Your task to perform on an android device: find snoozed emails in the gmail app Image 0: 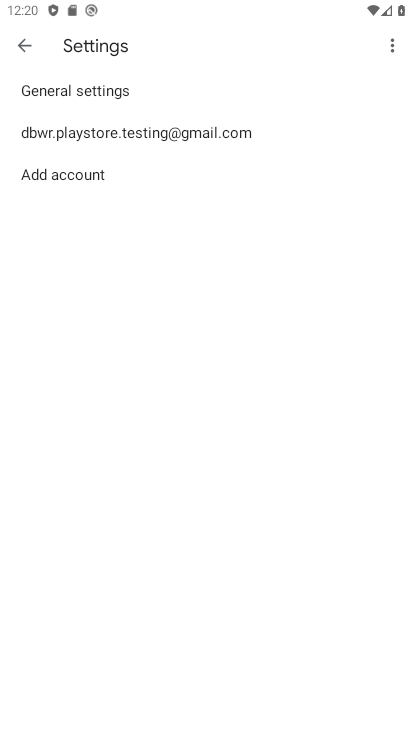
Step 0: press home button
Your task to perform on an android device: find snoozed emails in the gmail app Image 1: 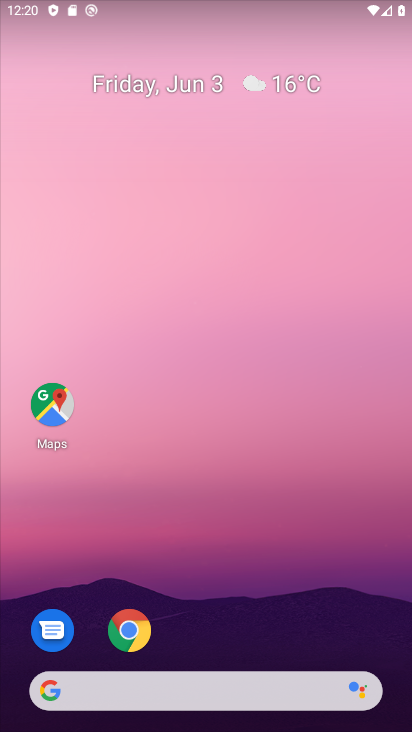
Step 1: drag from (224, 701) to (306, 188)
Your task to perform on an android device: find snoozed emails in the gmail app Image 2: 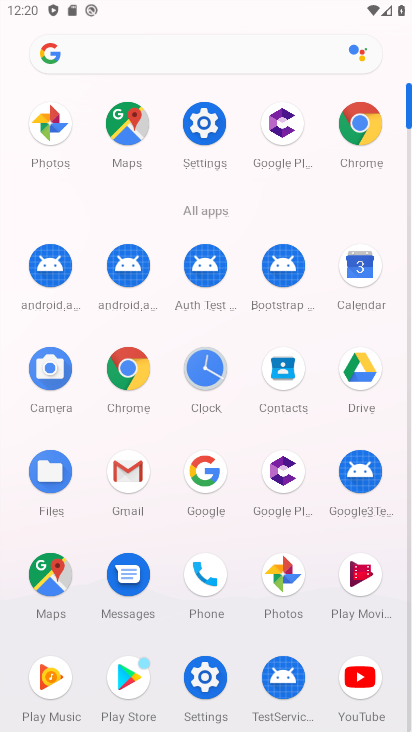
Step 2: click (133, 470)
Your task to perform on an android device: find snoozed emails in the gmail app Image 3: 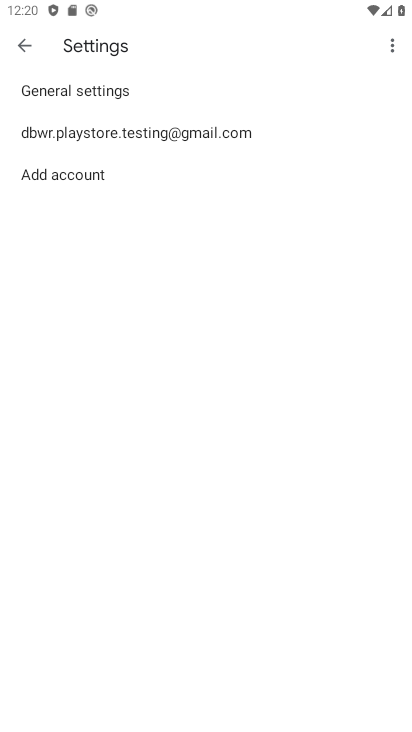
Step 3: click (37, 49)
Your task to perform on an android device: find snoozed emails in the gmail app Image 4: 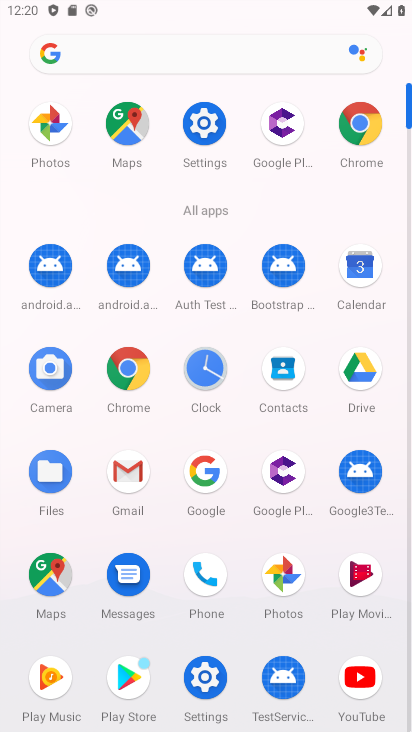
Step 4: click (125, 478)
Your task to perform on an android device: find snoozed emails in the gmail app Image 5: 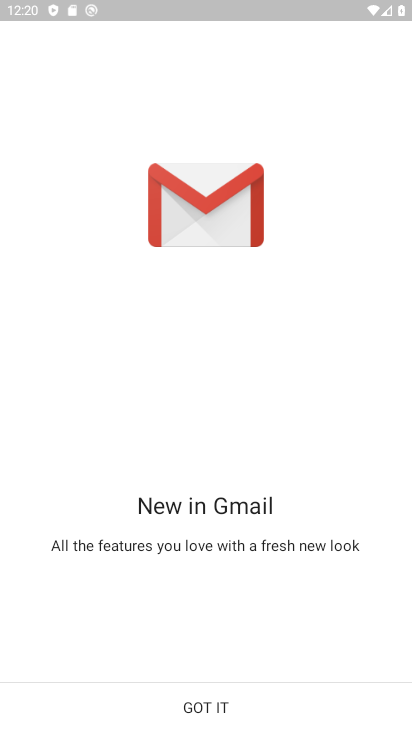
Step 5: click (221, 715)
Your task to perform on an android device: find snoozed emails in the gmail app Image 6: 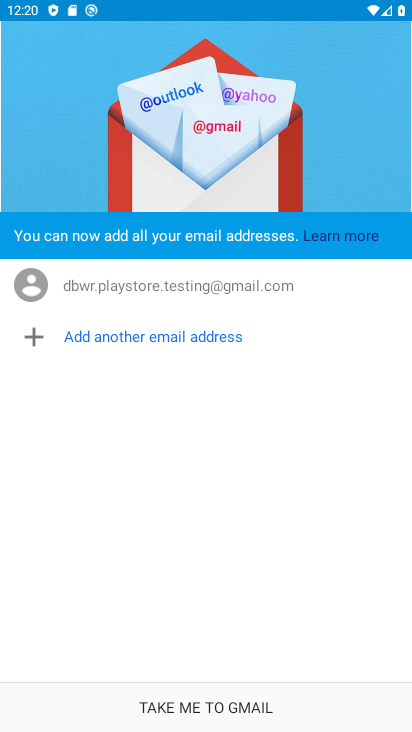
Step 6: click (221, 715)
Your task to perform on an android device: find snoozed emails in the gmail app Image 7: 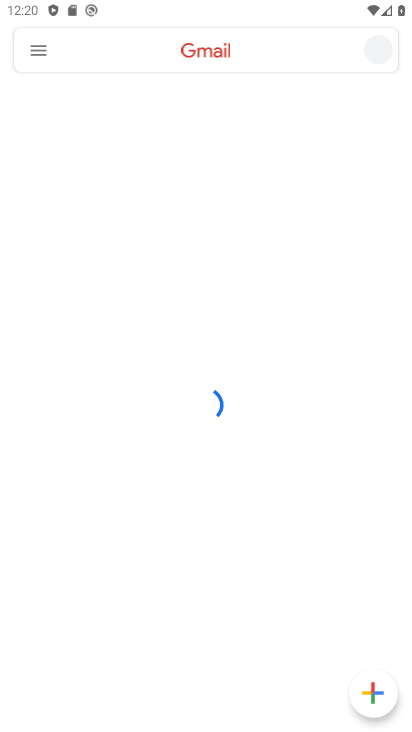
Step 7: click (39, 46)
Your task to perform on an android device: find snoozed emails in the gmail app Image 8: 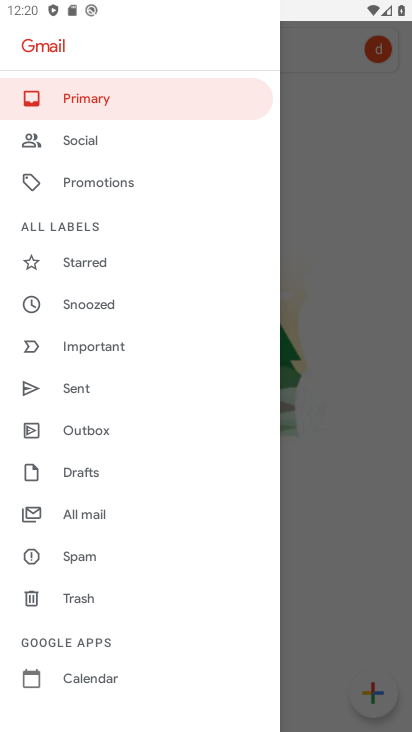
Step 8: drag from (120, 684) to (117, 581)
Your task to perform on an android device: find snoozed emails in the gmail app Image 9: 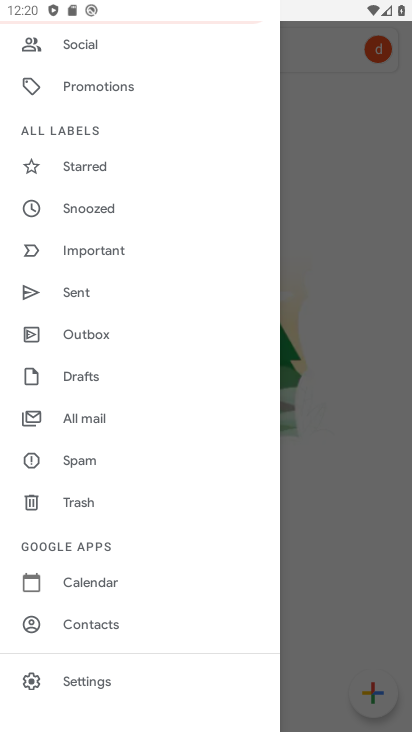
Step 9: click (94, 678)
Your task to perform on an android device: find snoozed emails in the gmail app Image 10: 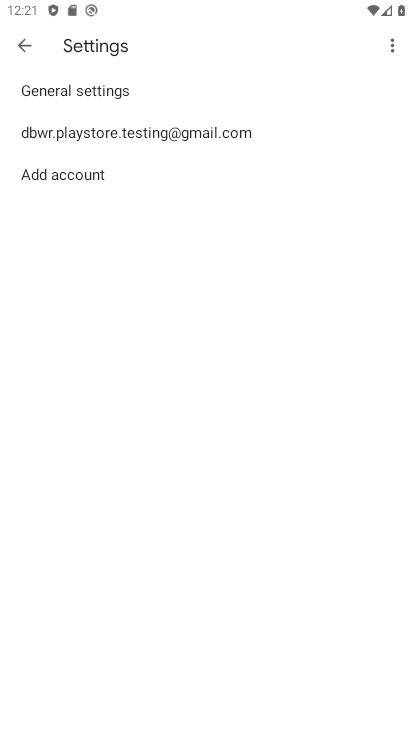
Step 10: click (89, 132)
Your task to perform on an android device: find snoozed emails in the gmail app Image 11: 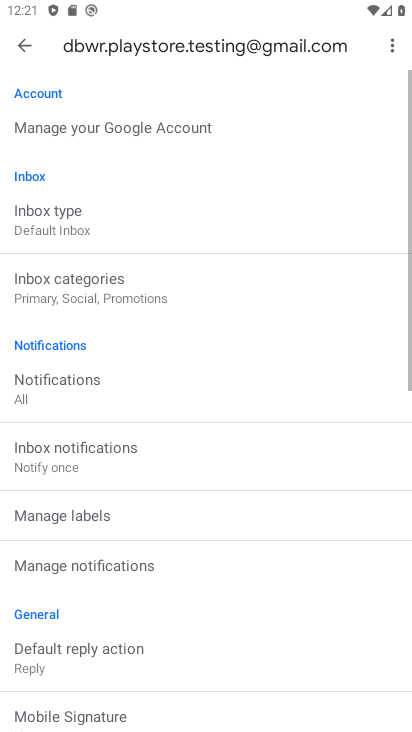
Step 11: click (31, 41)
Your task to perform on an android device: find snoozed emails in the gmail app Image 12: 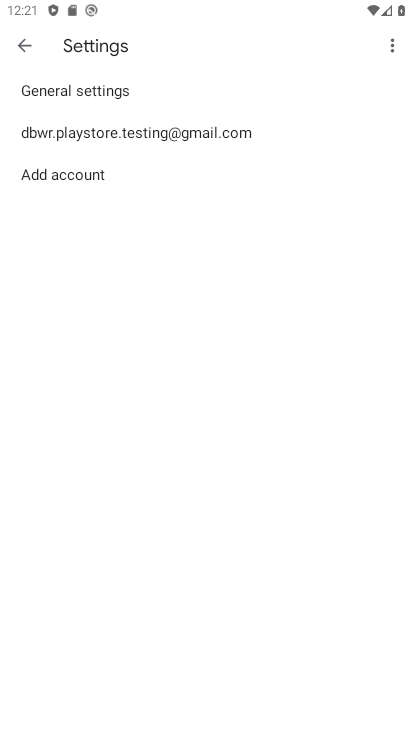
Step 12: click (31, 41)
Your task to perform on an android device: find snoozed emails in the gmail app Image 13: 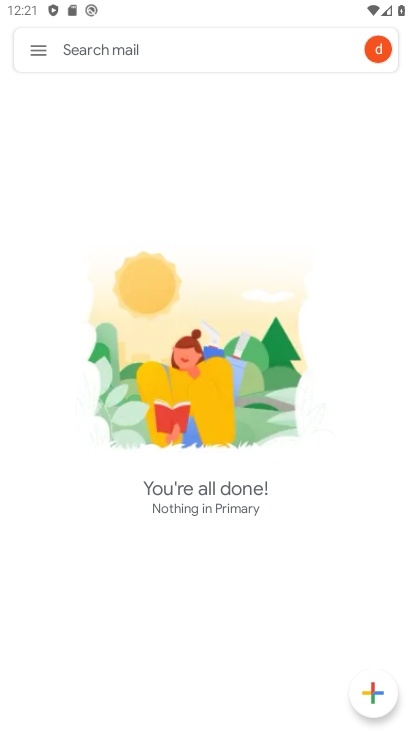
Step 13: click (27, 48)
Your task to perform on an android device: find snoozed emails in the gmail app Image 14: 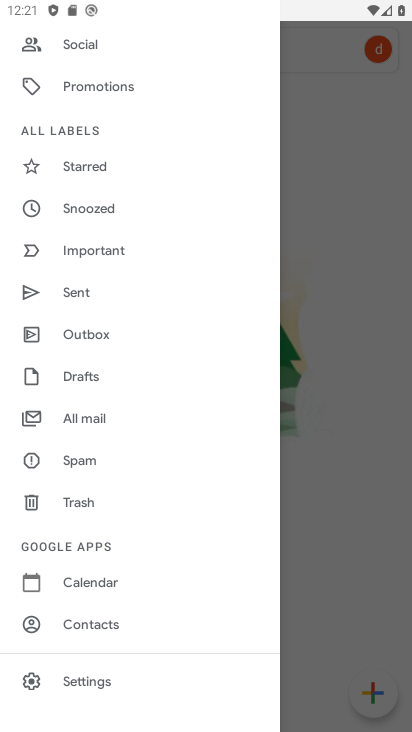
Step 14: click (76, 210)
Your task to perform on an android device: find snoozed emails in the gmail app Image 15: 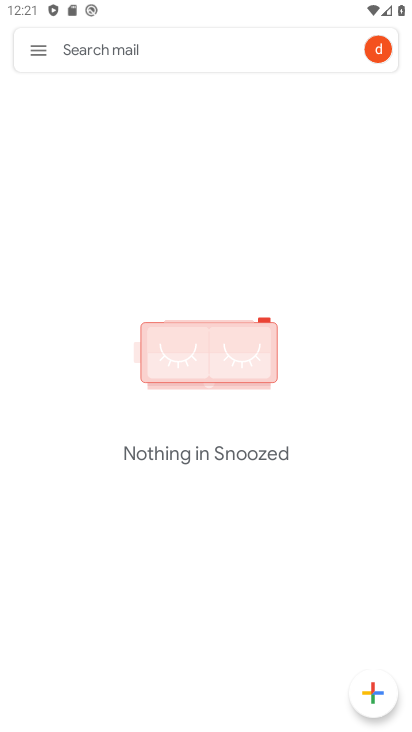
Step 15: task complete